Your task to perform on an android device: Search for sushi restaurants on Maps Image 0: 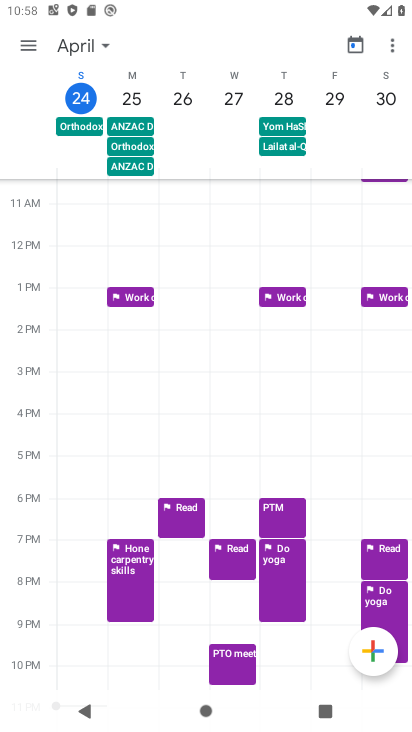
Step 0: press home button
Your task to perform on an android device: Search for sushi restaurants on Maps Image 1: 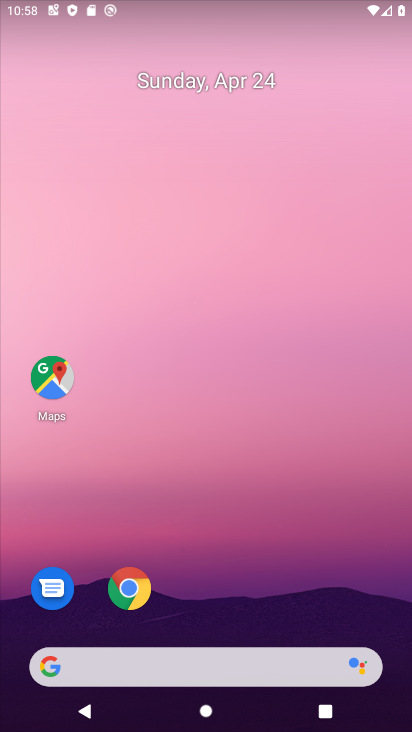
Step 1: click (54, 387)
Your task to perform on an android device: Search for sushi restaurants on Maps Image 2: 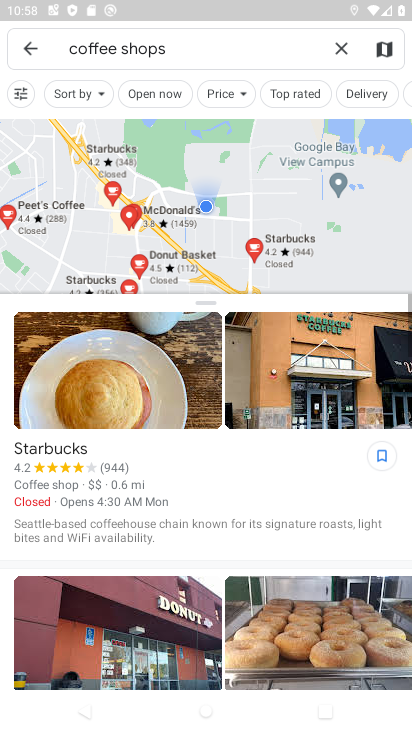
Step 2: click (344, 49)
Your task to perform on an android device: Search for sushi restaurants on Maps Image 3: 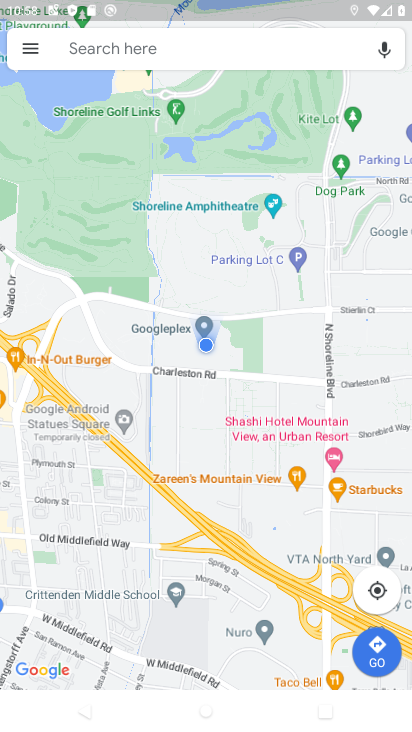
Step 3: click (174, 47)
Your task to perform on an android device: Search for sushi restaurants on Maps Image 4: 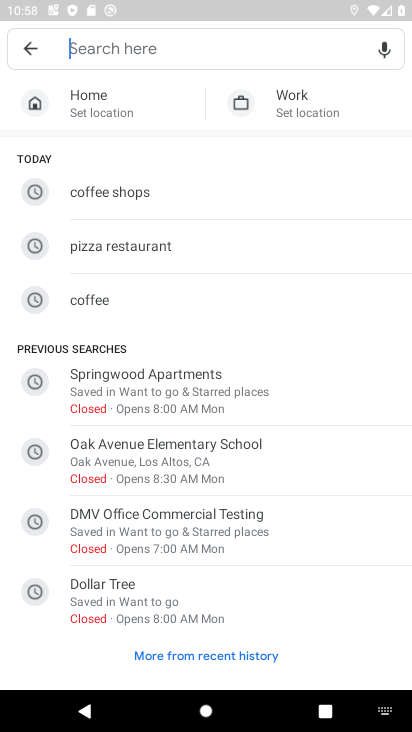
Step 4: type "sushi restaurants"
Your task to perform on an android device: Search for sushi restaurants on Maps Image 5: 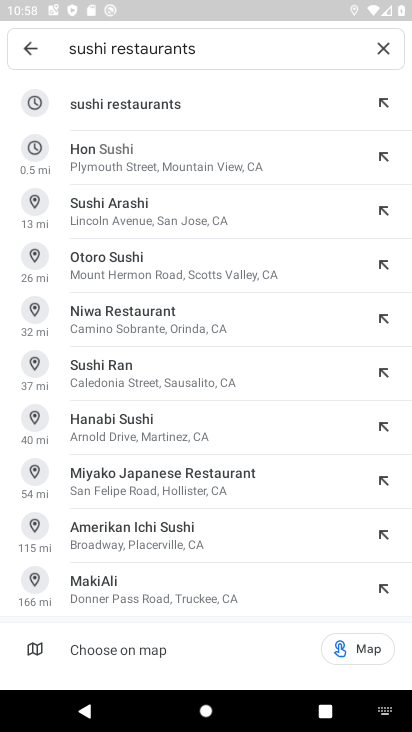
Step 5: click (173, 109)
Your task to perform on an android device: Search for sushi restaurants on Maps Image 6: 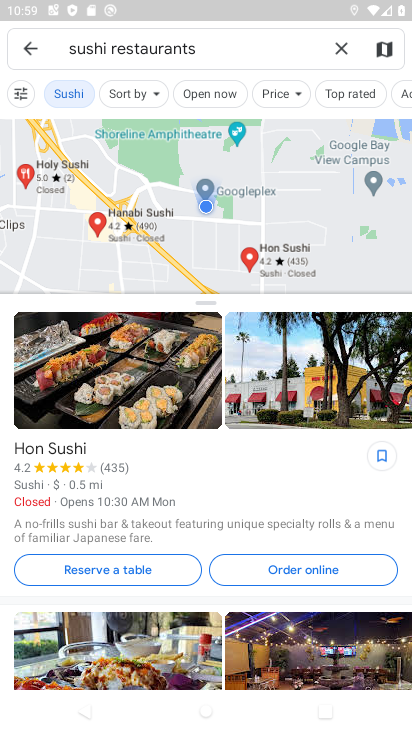
Step 6: task complete